Your task to perform on an android device: check android version Image 0: 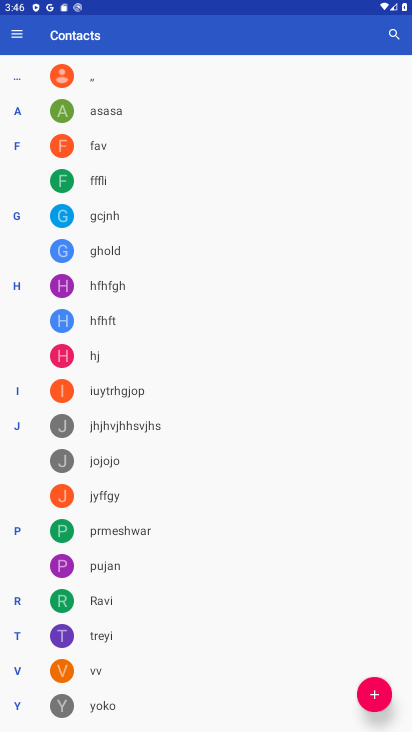
Step 0: press home button
Your task to perform on an android device: check android version Image 1: 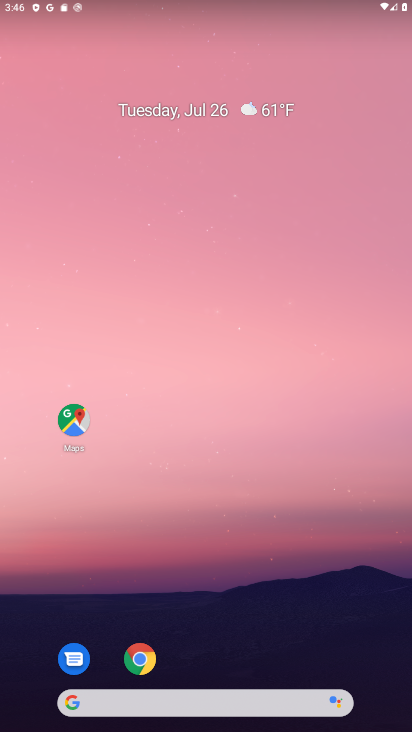
Step 1: drag from (316, 669) to (260, 102)
Your task to perform on an android device: check android version Image 2: 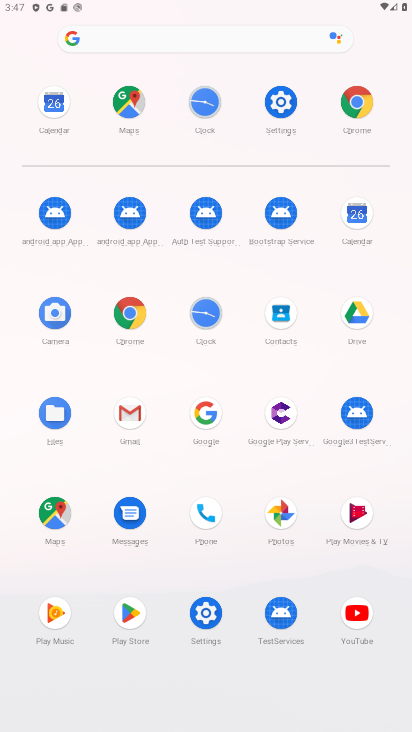
Step 2: click (274, 93)
Your task to perform on an android device: check android version Image 3: 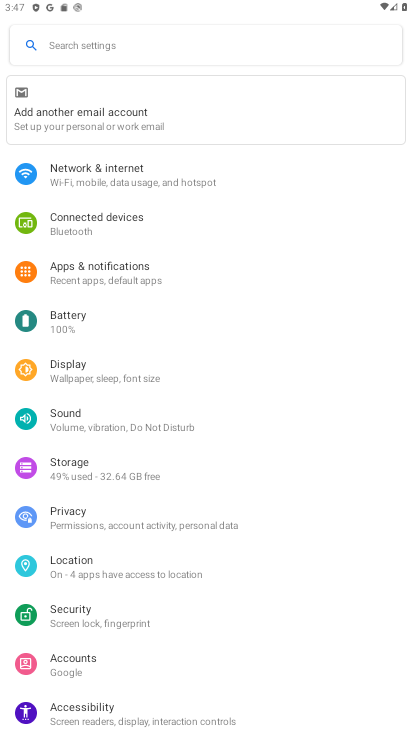
Step 3: drag from (236, 631) to (265, 27)
Your task to perform on an android device: check android version Image 4: 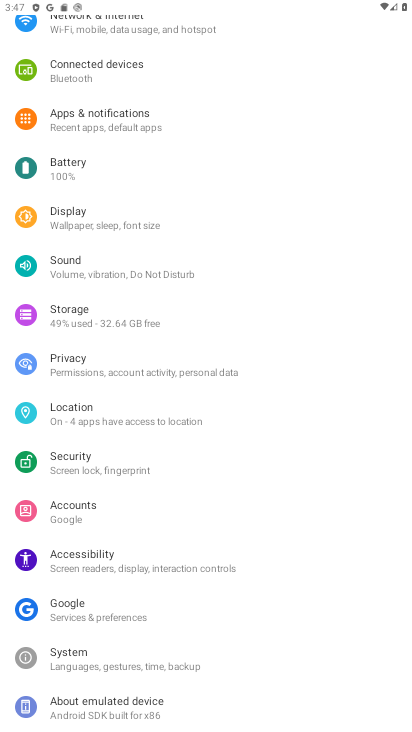
Step 4: click (123, 716)
Your task to perform on an android device: check android version Image 5: 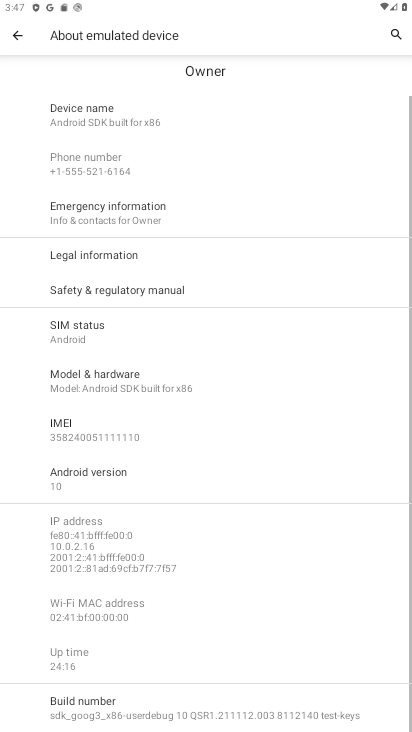
Step 5: drag from (229, 683) to (229, 345)
Your task to perform on an android device: check android version Image 6: 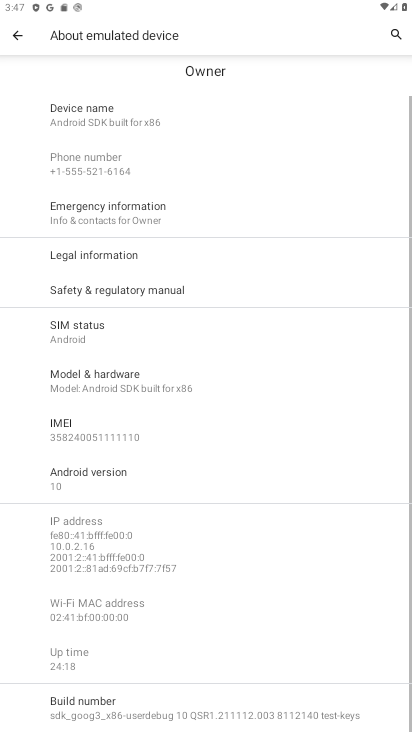
Step 6: click (106, 473)
Your task to perform on an android device: check android version Image 7: 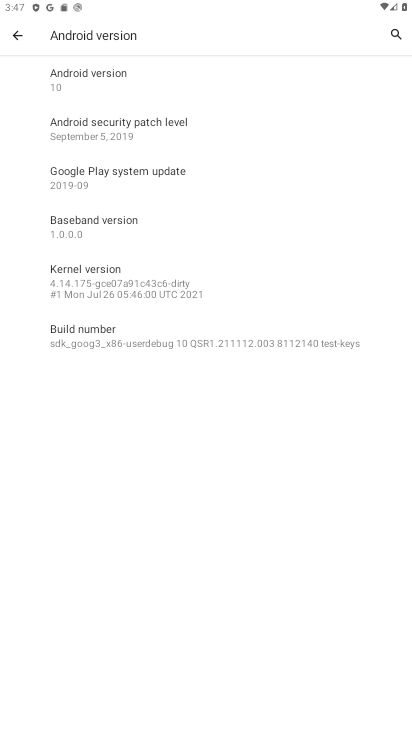
Step 7: task complete